Your task to perform on an android device: Open eBay Image 0: 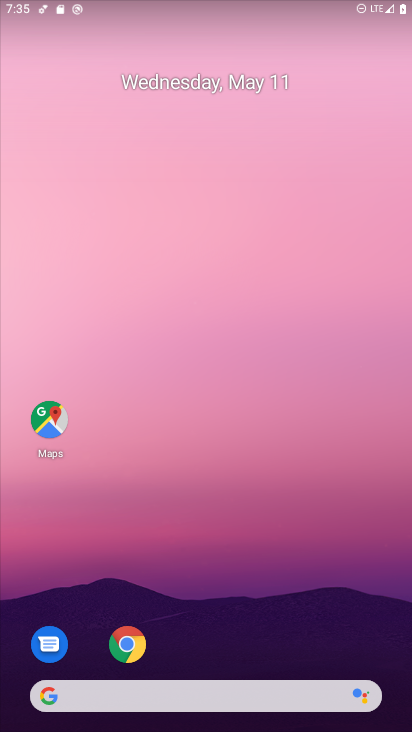
Step 0: click (126, 645)
Your task to perform on an android device: Open eBay Image 1: 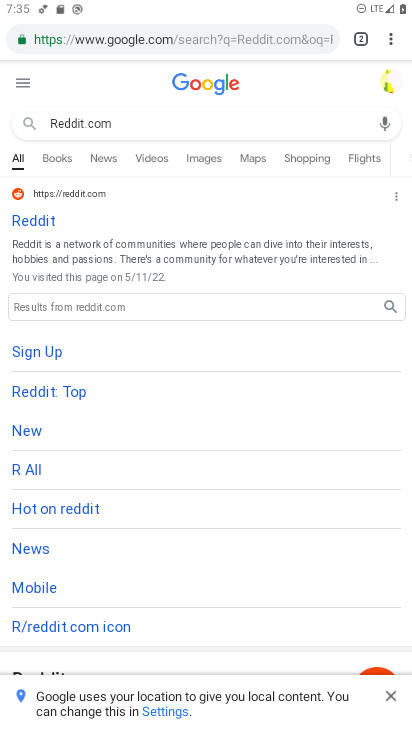
Step 1: click (390, 40)
Your task to perform on an android device: Open eBay Image 2: 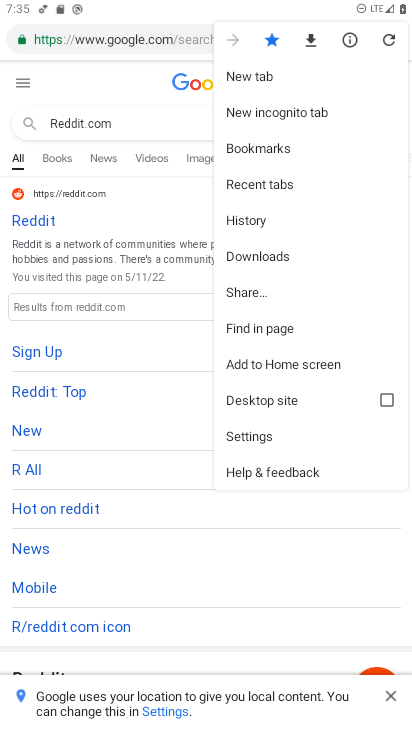
Step 2: click (246, 76)
Your task to perform on an android device: Open eBay Image 3: 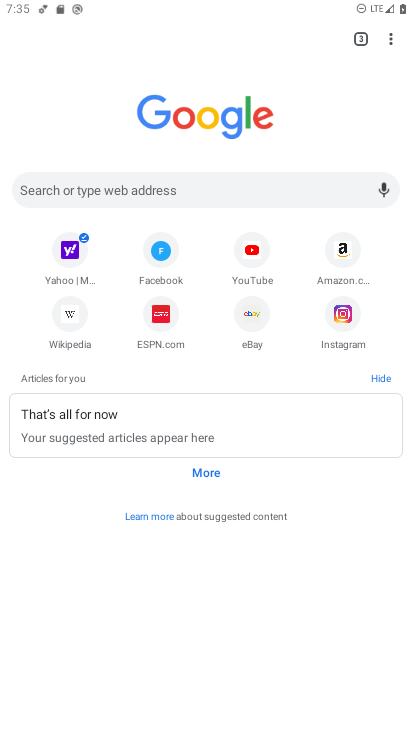
Step 3: click (243, 309)
Your task to perform on an android device: Open eBay Image 4: 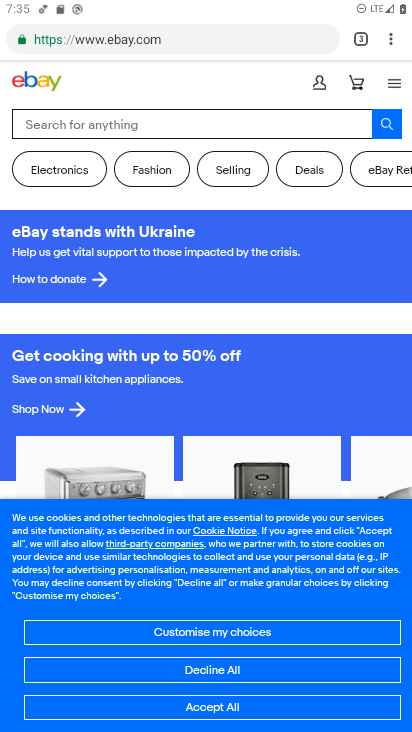
Step 4: task complete